Your task to perform on an android device: Go to Google maps Image 0: 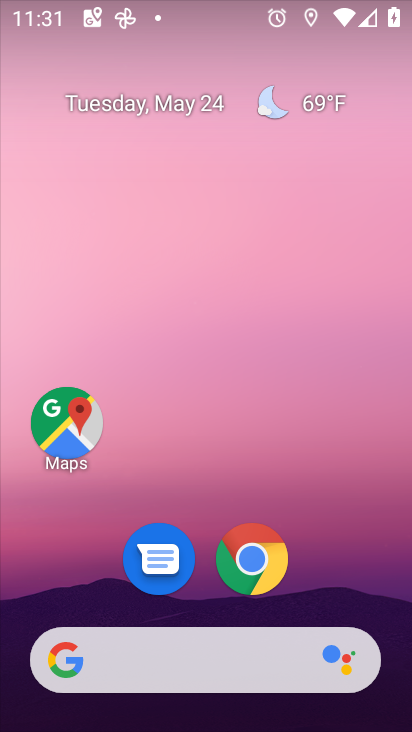
Step 0: drag from (400, 636) to (362, 42)
Your task to perform on an android device: Go to Google maps Image 1: 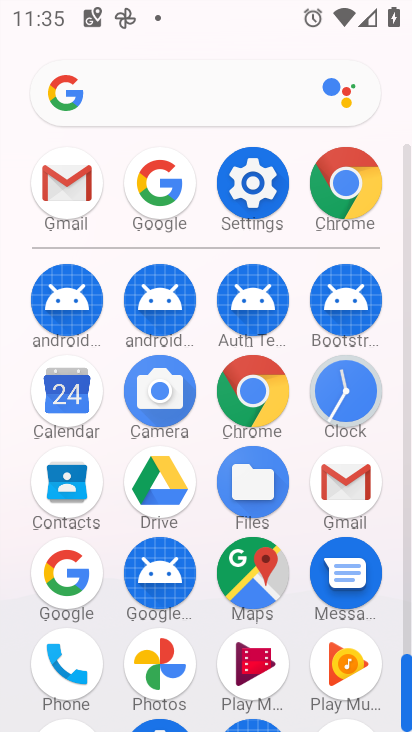
Step 1: click (252, 576)
Your task to perform on an android device: Go to Google maps Image 2: 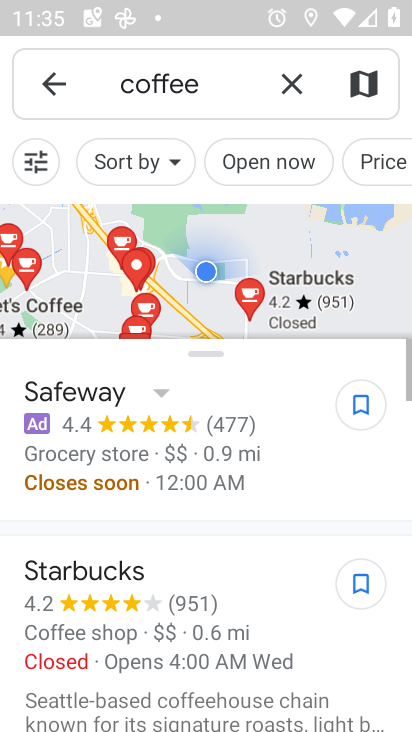
Step 2: click (287, 83)
Your task to perform on an android device: Go to Google maps Image 3: 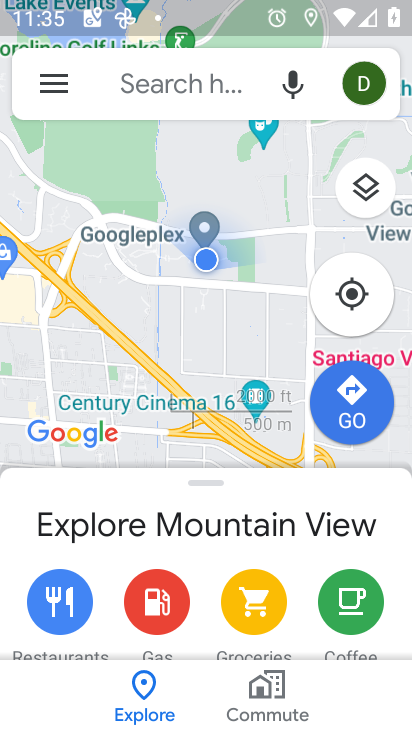
Step 3: task complete